Your task to perform on an android device: Search for vegetarian restaurants on Maps Image 0: 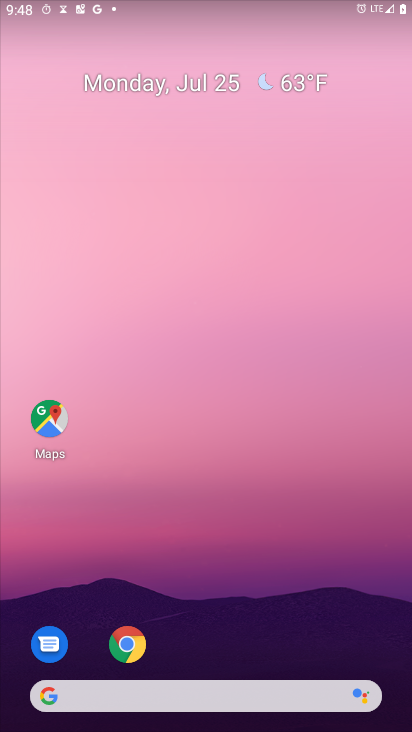
Step 0: drag from (334, 664) to (301, 218)
Your task to perform on an android device: Search for vegetarian restaurants on Maps Image 1: 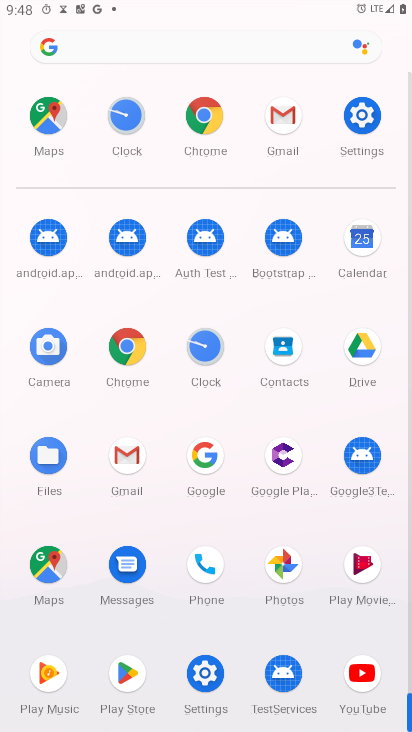
Step 1: click (46, 568)
Your task to perform on an android device: Search for vegetarian restaurants on Maps Image 2: 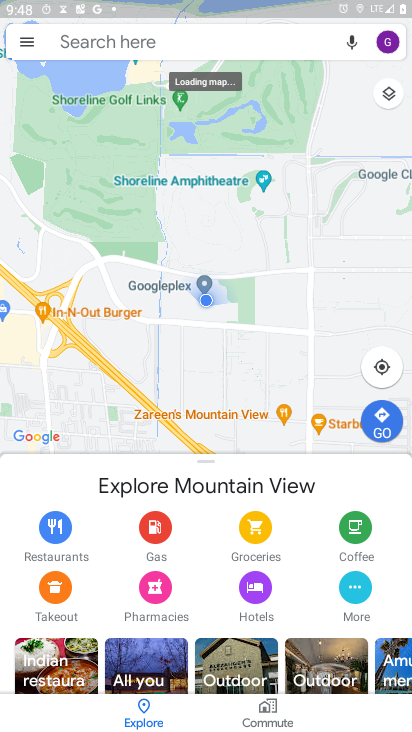
Step 2: click (70, 33)
Your task to perform on an android device: Search for vegetarian restaurants on Maps Image 3: 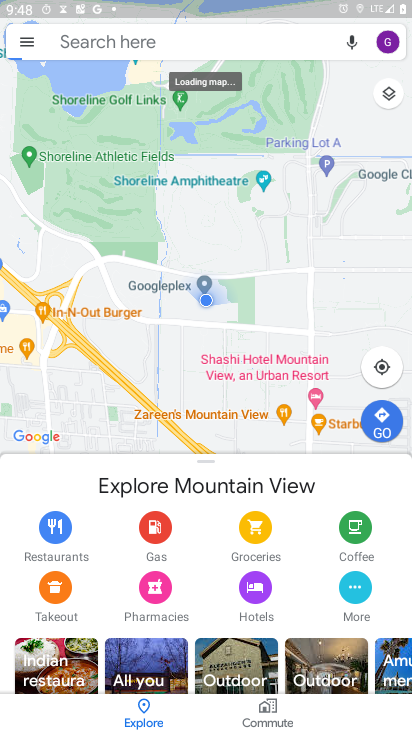
Step 3: click (78, 35)
Your task to perform on an android device: Search for vegetarian restaurants on Maps Image 4: 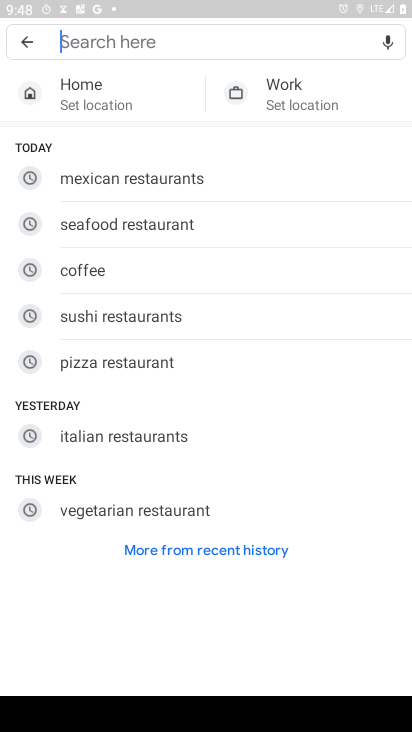
Step 4: click (102, 508)
Your task to perform on an android device: Search for vegetarian restaurants on Maps Image 5: 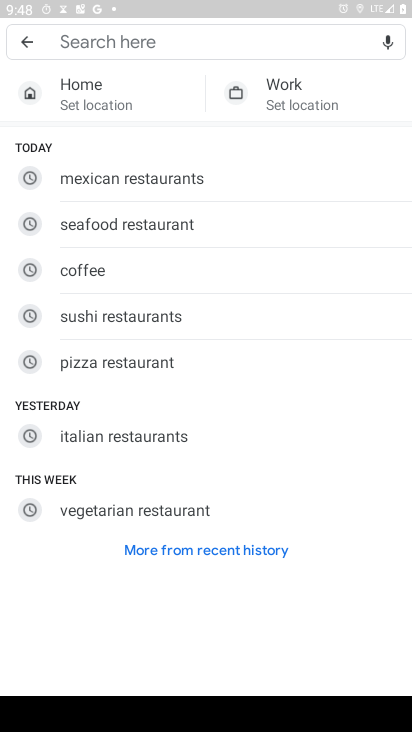
Step 5: click (102, 508)
Your task to perform on an android device: Search for vegetarian restaurants on Maps Image 6: 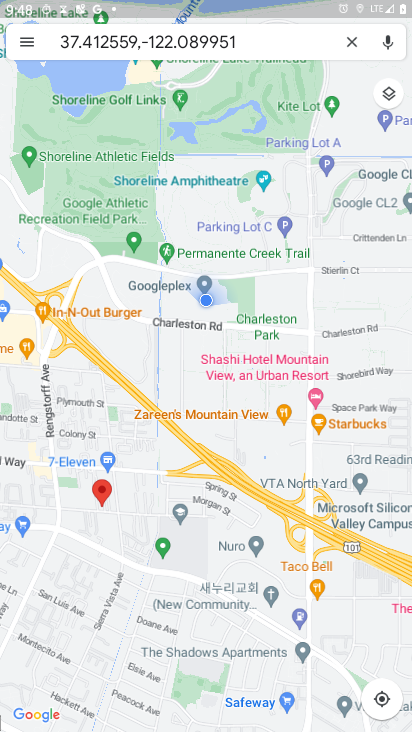
Step 6: task complete